Your task to perform on an android device: uninstall "PUBG MOBILE" Image 0: 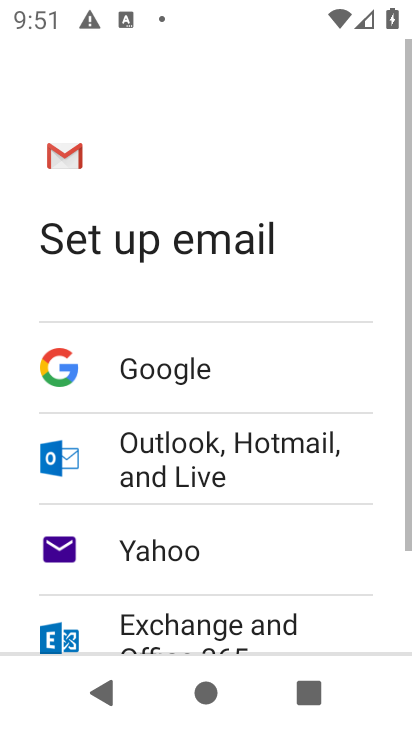
Step 0: press home button
Your task to perform on an android device: uninstall "PUBG MOBILE" Image 1: 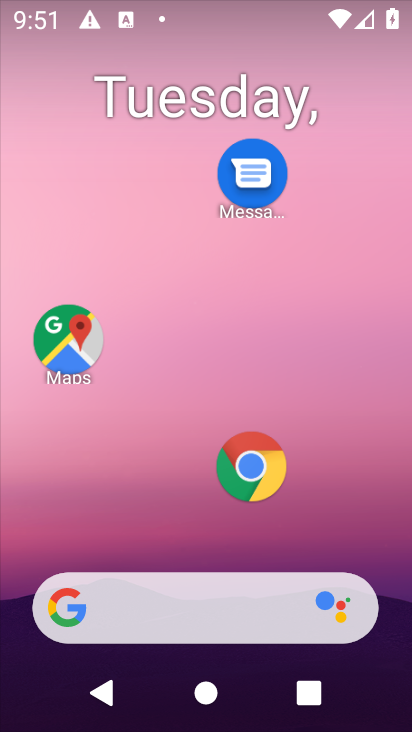
Step 1: drag from (133, 526) to (192, 86)
Your task to perform on an android device: uninstall "PUBG MOBILE" Image 2: 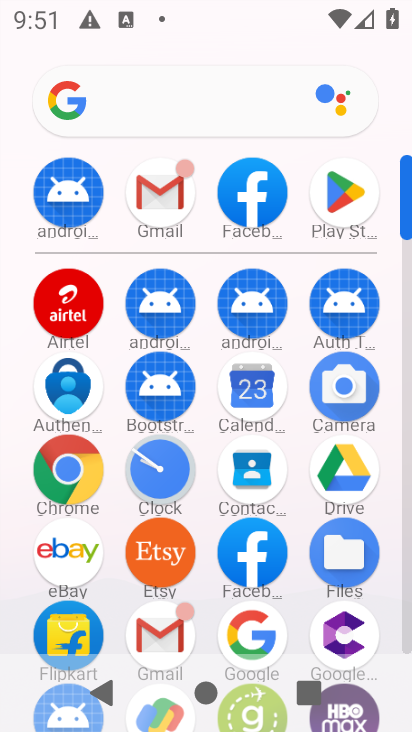
Step 2: click (344, 178)
Your task to perform on an android device: uninstall "PUBG MOBILE" Image 3: 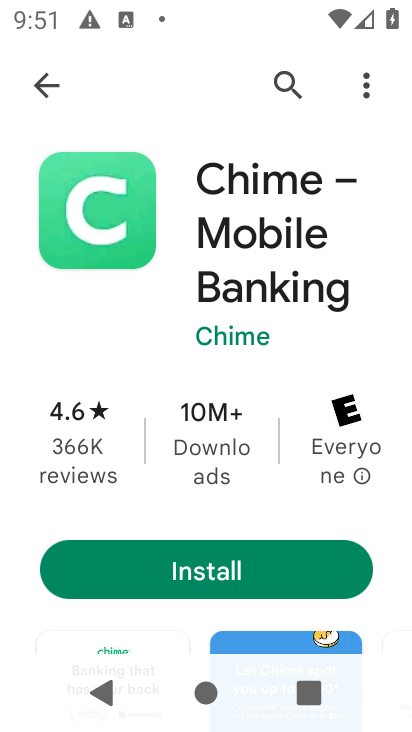
Step 3: click (291, 90)
Your task to perform on an android device: uninstall "PUBG MOBILE" Image 4: 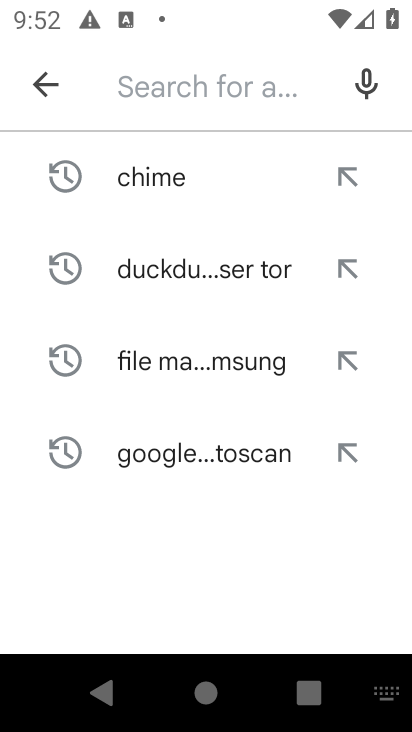
Step 4: click (147, 81)
Your task to perform on an android device: uninstall "PUBG MOBILE" Image 5: 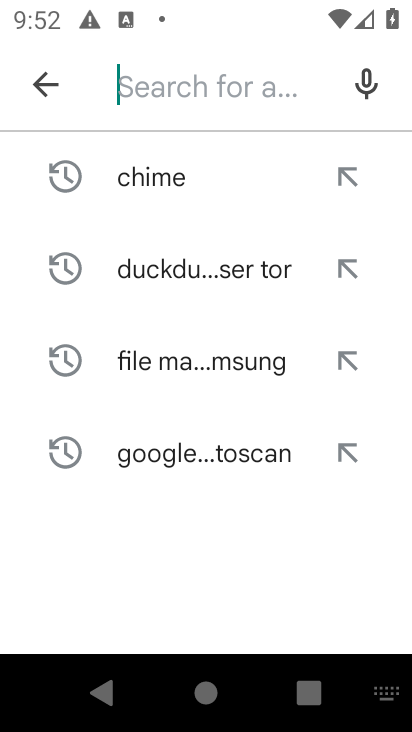
Step 5: click (155, 90)
Your task to perform on an android device: uninstall "PUBG MOBILE" Image 6: 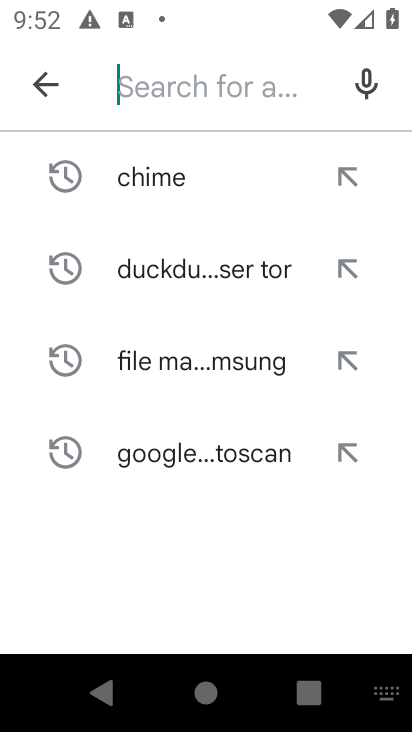
Step 6: type "PUBG MOBILE"
Your task to perform on an android device: uninstall "PUBG MOBILE" Image 7: 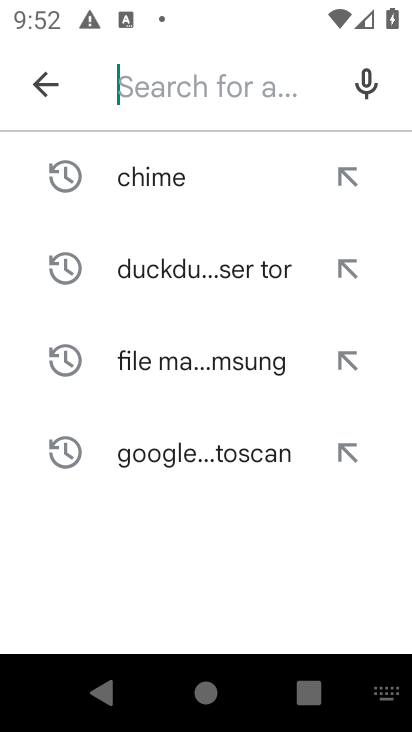
Step 7: click (211, 611)
Your task to perform on an android device: uninstall "PUBG MOBILE" Image 8: 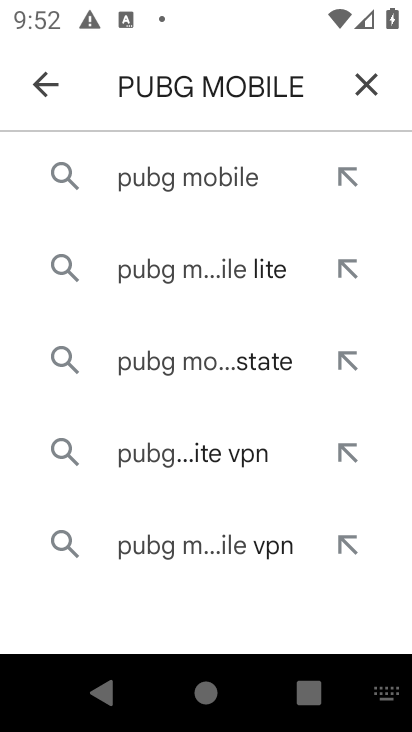
Step 8: click (206, 168)
Your task to perform on an android device: uninstall "PUBG MOBILE" Image 9: 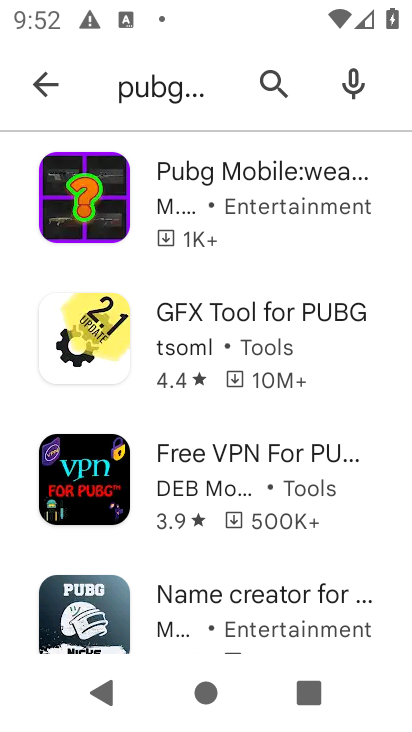
Step 9: task complete